Your task to perform on an android device: Open location settings Image 0: 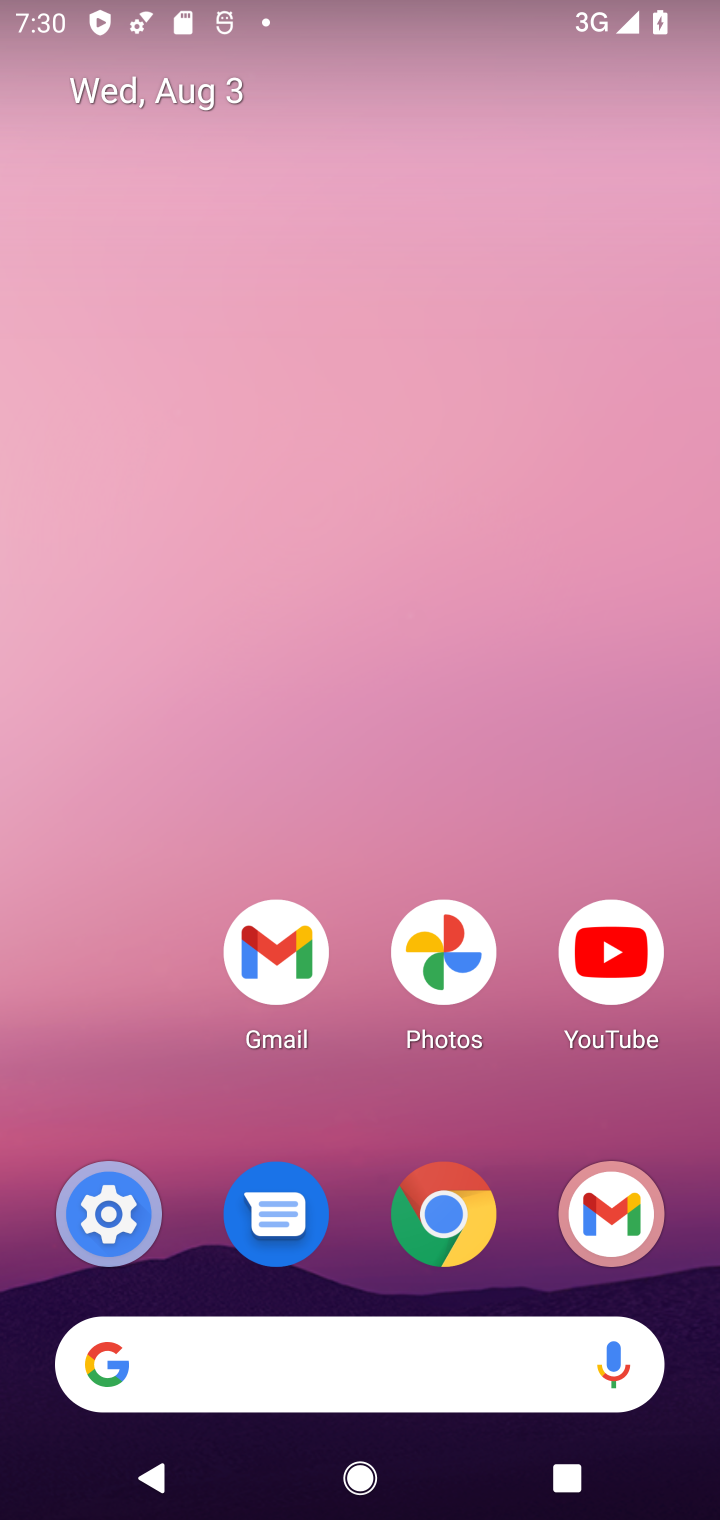
Step 0: drag from (83, 1061) to (201, 1)
Your task to perform on an android device: Open location settings Image 1: 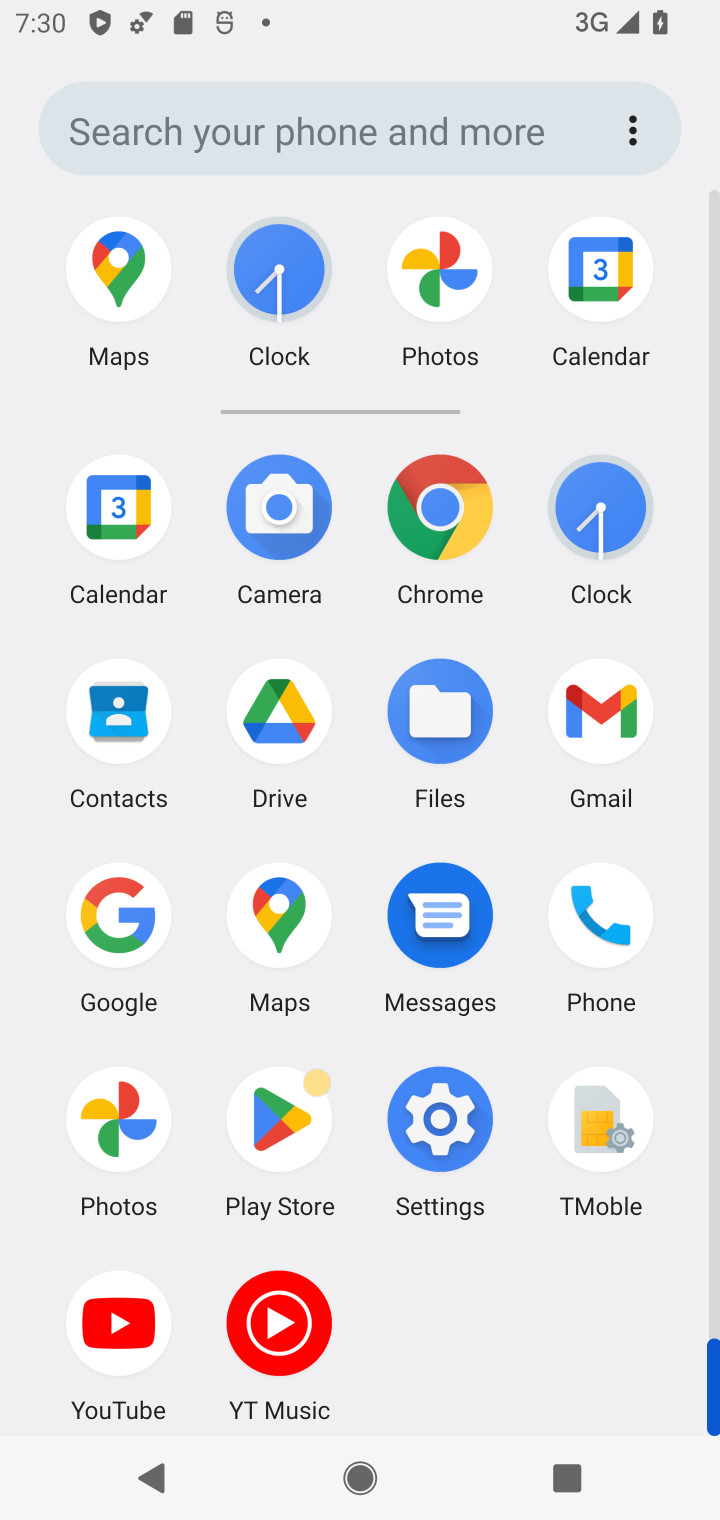
Step 1: click (461, 1137)
Your task to perform on an android device: Open location settings Image 2: 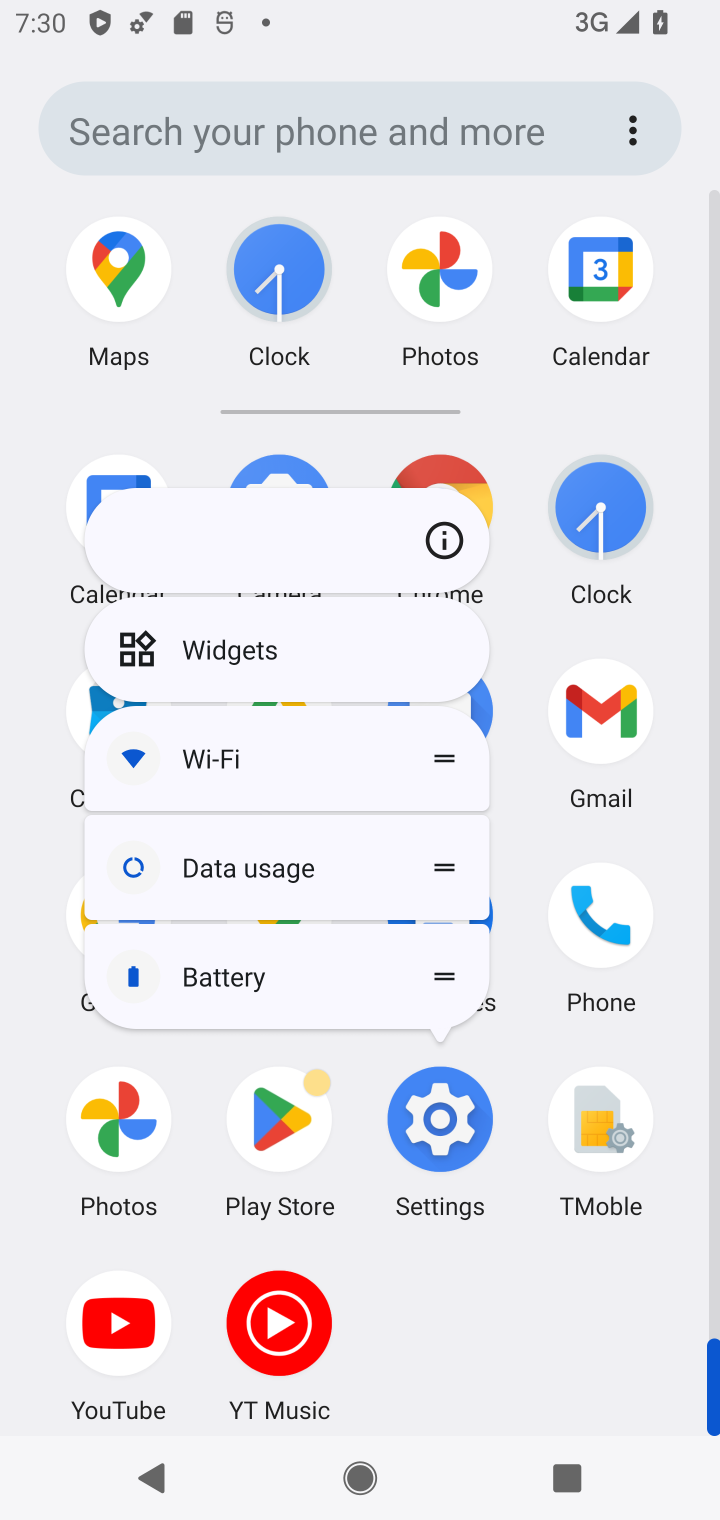
Step 2: click (406, 1103)
Your task to perform on an android device: Open location settings Image 3: 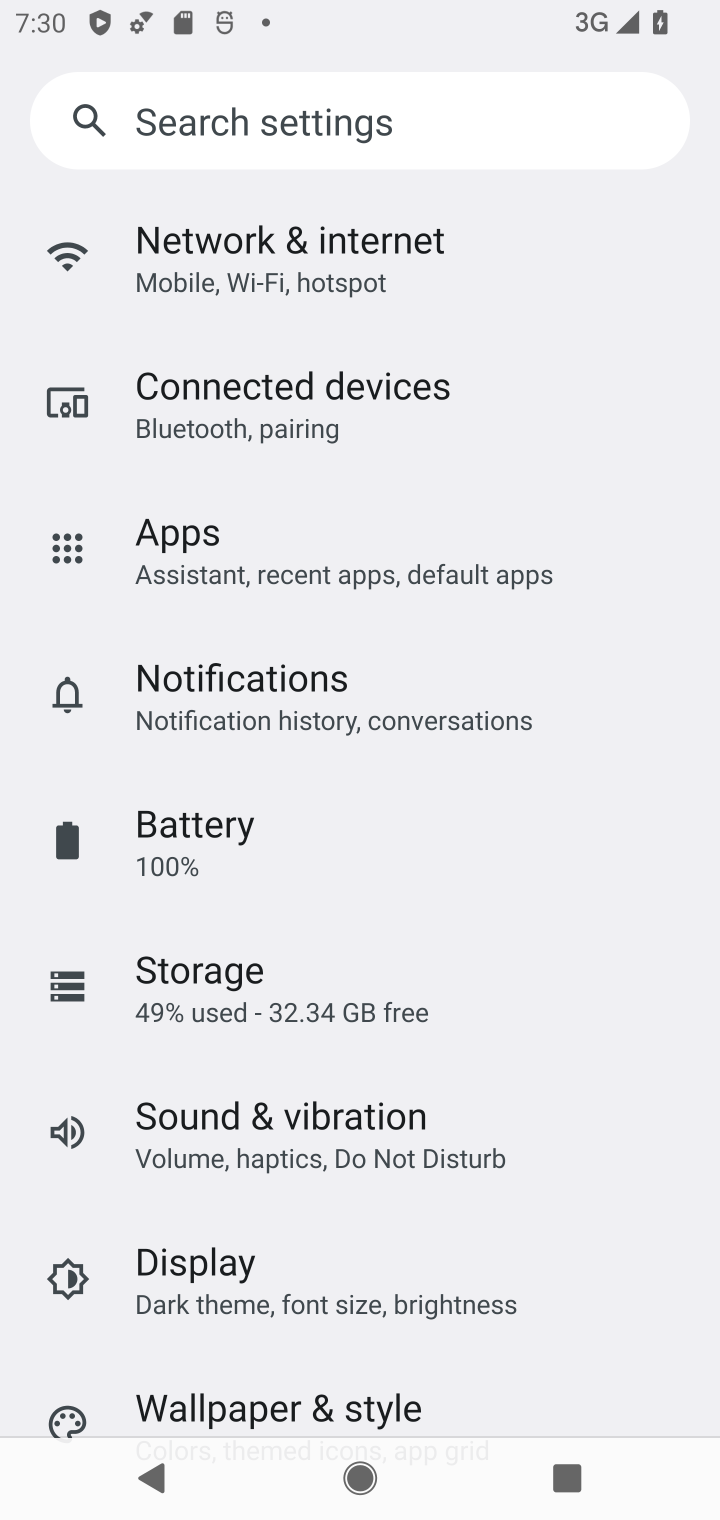
Step 3: drag from (176, 1316) to (340, 284)
Your task to perform on an android device: Open location settings Image 4: 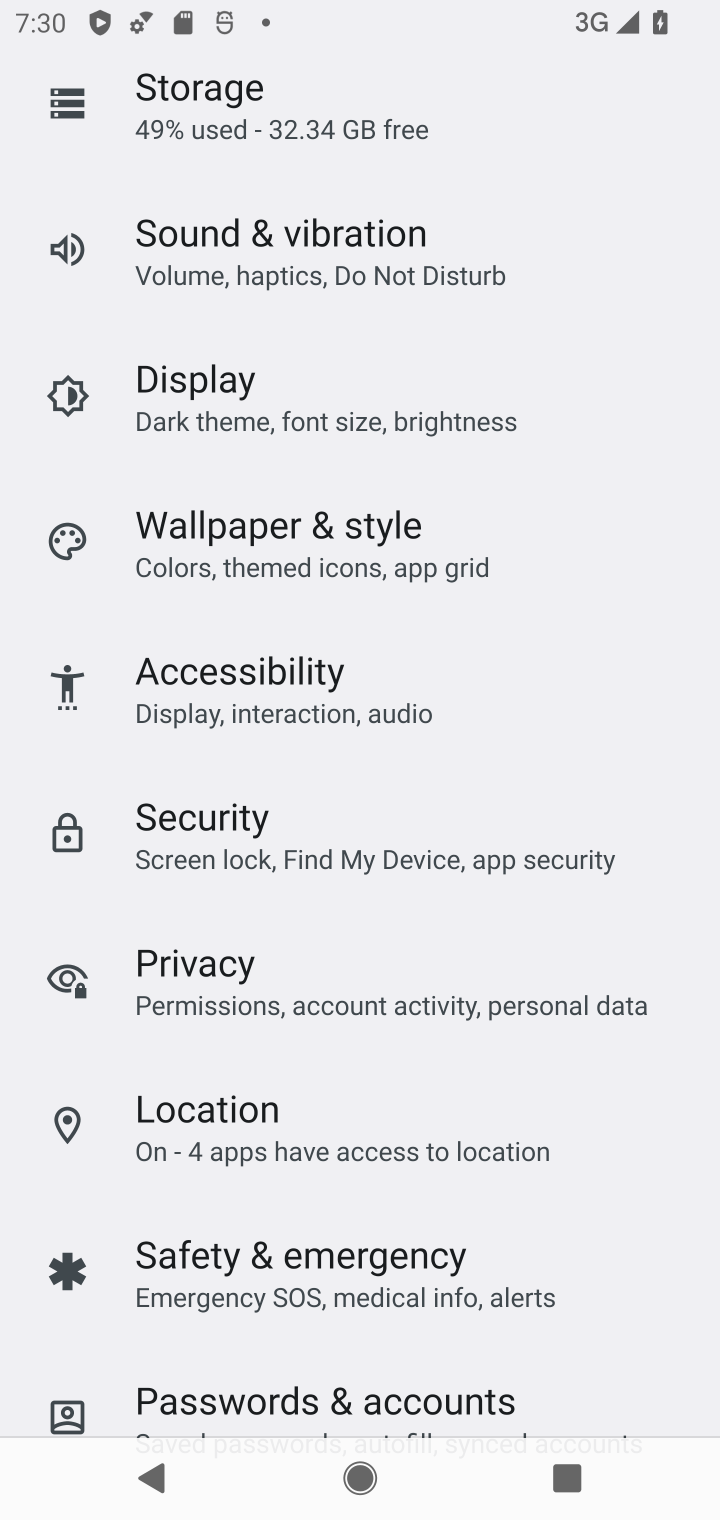
Step 4: drag from (264, 1191) to (303, 384)
Your task to perform on an android device: Open location settings Image 5: 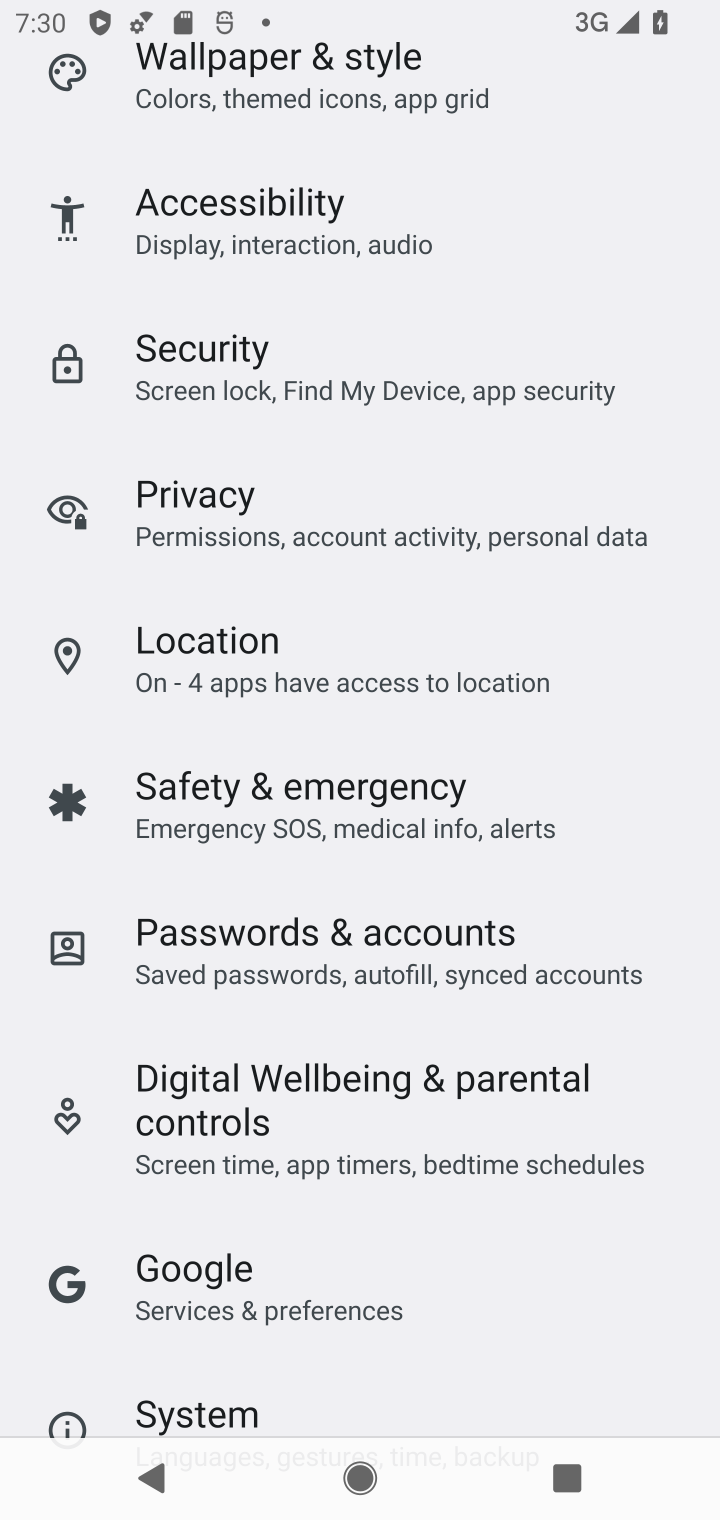
Step 5: click (166, 661)
Your task to perform on an android device: Open location settings Image 6: 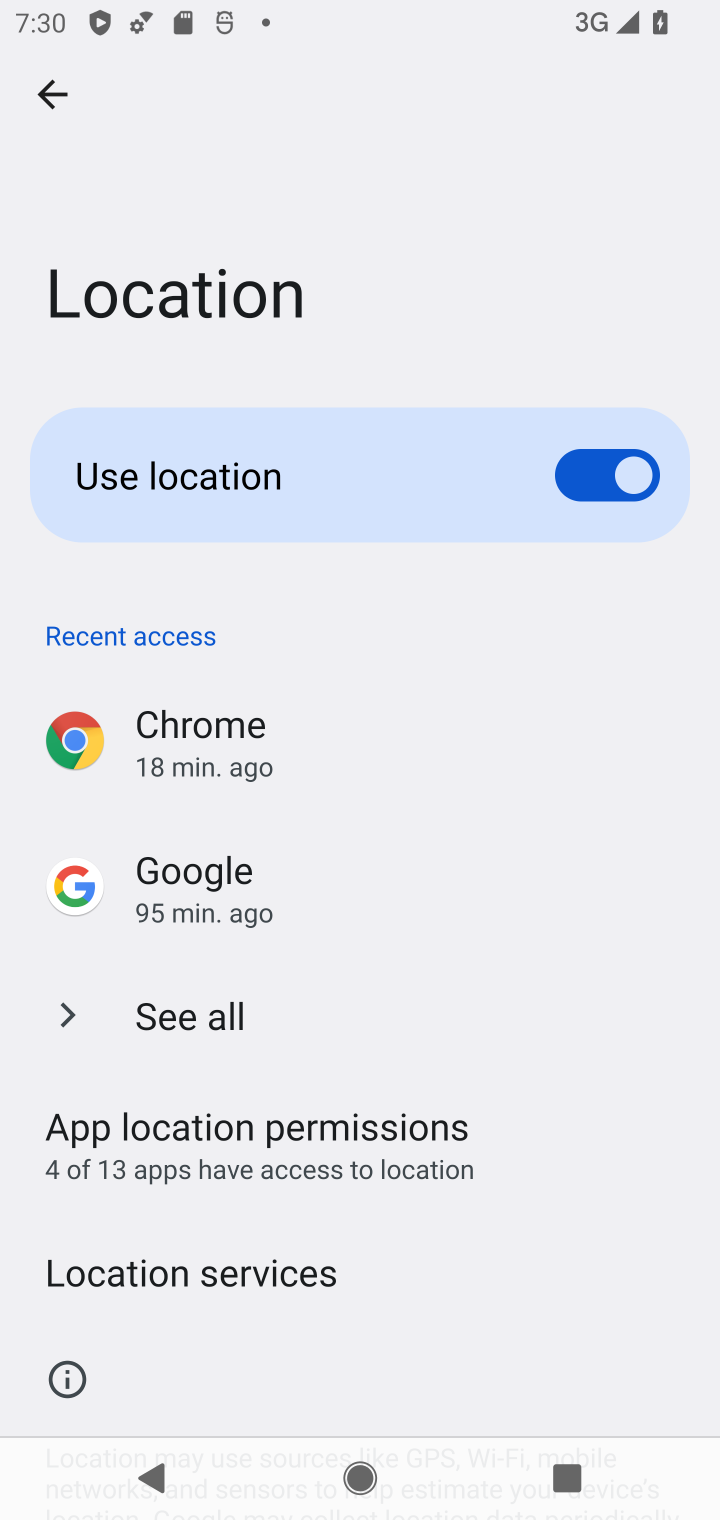
Step 6: task complete